Your task to perform on an android device: open sync settings in chrome Image 0: 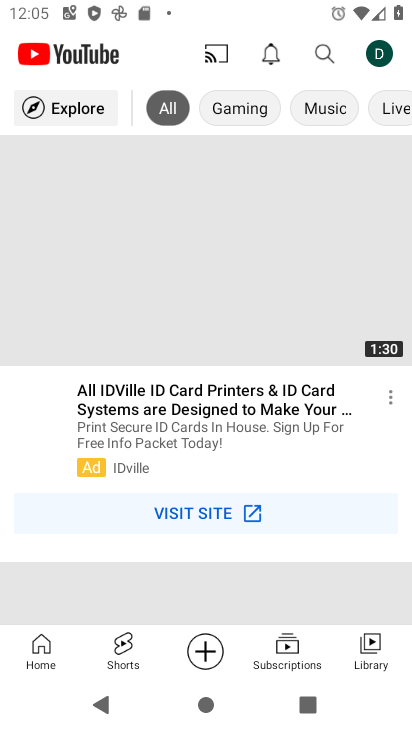
Step 0: press home button
Your task to perform on an android device: open sync settings in chrome Image 1: 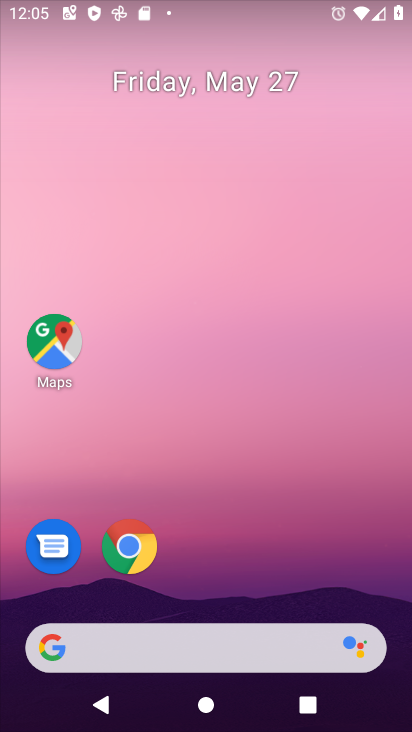
Step 1: click (134, 547)
Your task to perform on an android device: open sync settings in chrome Image 2: 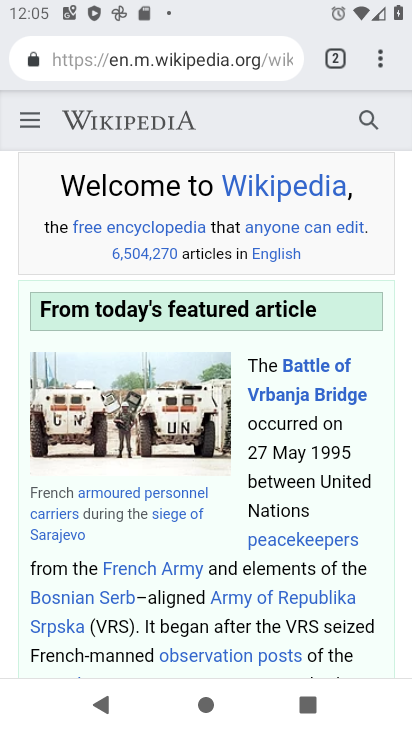
Step 2: click (370, 59)
Your task to perform on an android device: open sync settings in chrome Image 3: 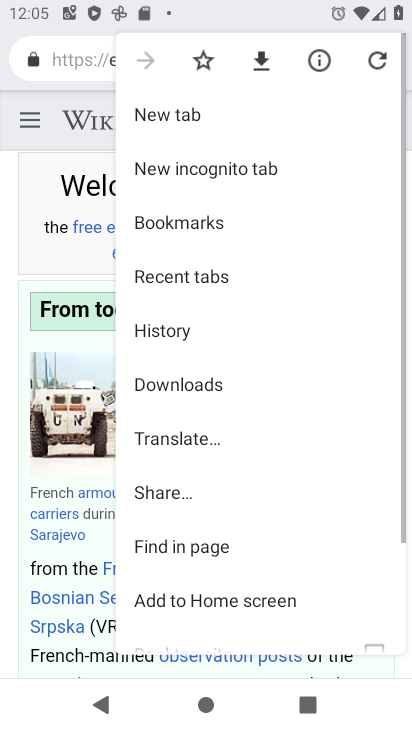
Step 3: drag from (197, 552) to (220, 208)
Your task to perform on an android device: open sync settings in chrome Image 4: 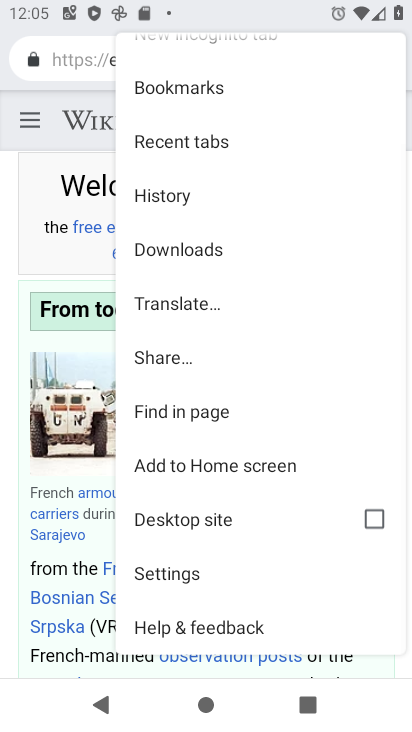
Step 4: click (175, 571)
Your task to perform on an android device: open sync settings in chrome Image 5: 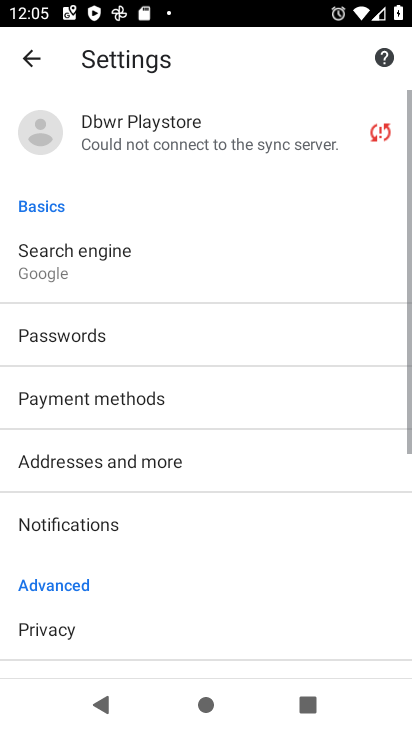
Step 5: drag from (265, 571) to (237, 143)
Your task to perform on an android device: open sync settings in chrome Image 6: 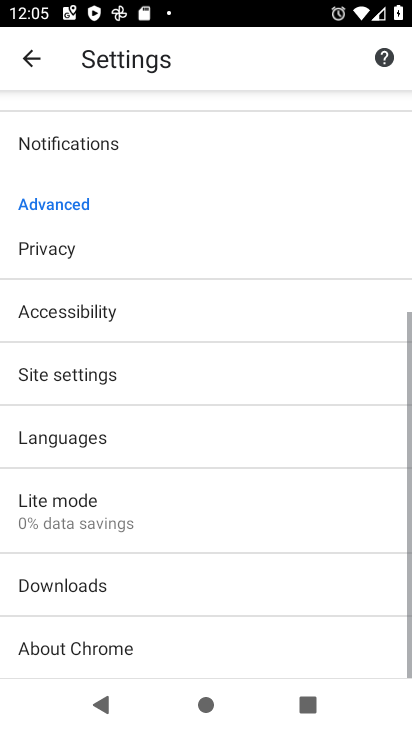
Step 6: click (80, 370)
Your task to perform on an android device: open sync settings in chrome Image 7: 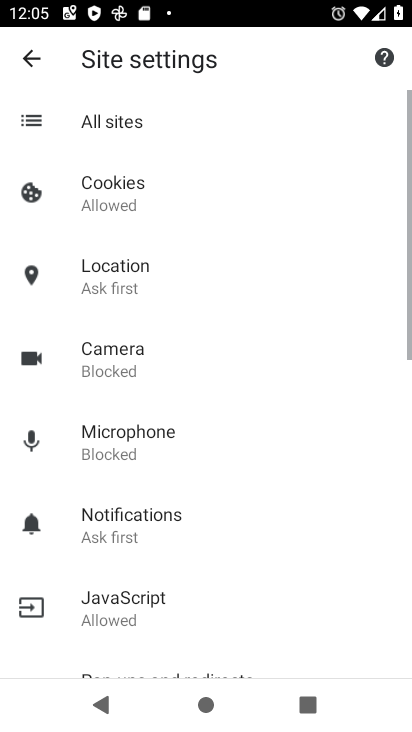
Step 7: drag from (212, 608) to (225, 230)
Your task to perform on an android device: open sync settings in chrome Image 8: 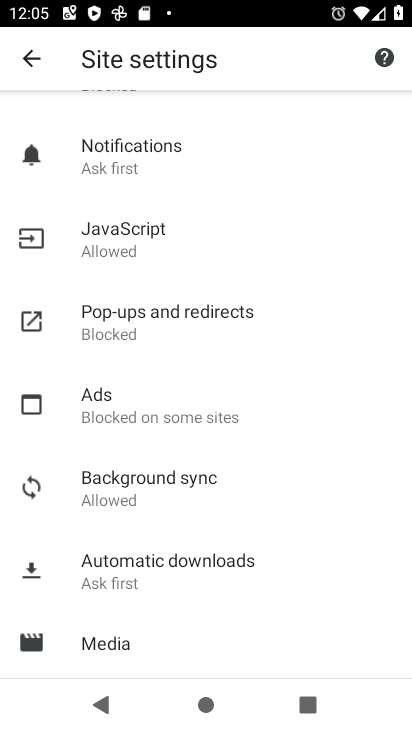
Step 8: click (160, 503)
Your task to perform on an android device: open sync settings in chrome Image 9: 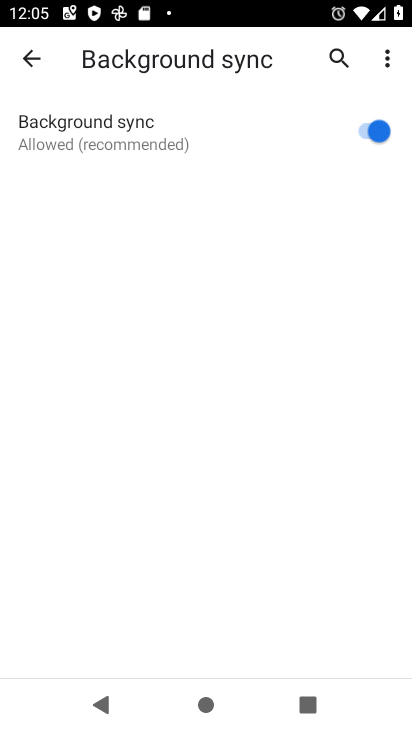
Step 9: task complete